Your task to perform on an android device: Open the Play Movies app and select the watchlist tab. Image 0: 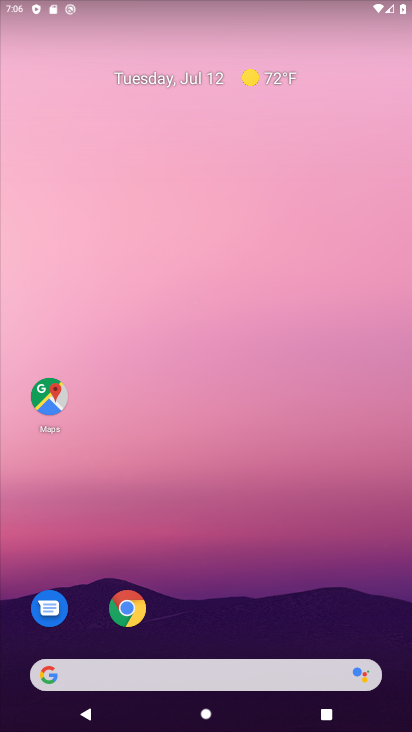
Step 0: drag from (226, 568) to (159, 97)
Your task to perform on an android device: Open the Play Movies app and select the watchlist tab. Image 1: 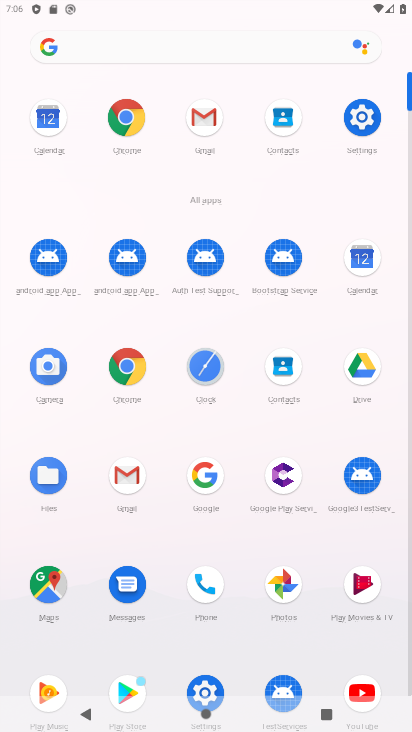
Step 1: click (352, 592)
Your task to perform on an android device: Open the Play Movies app and select the watchlist tab. Image 2: 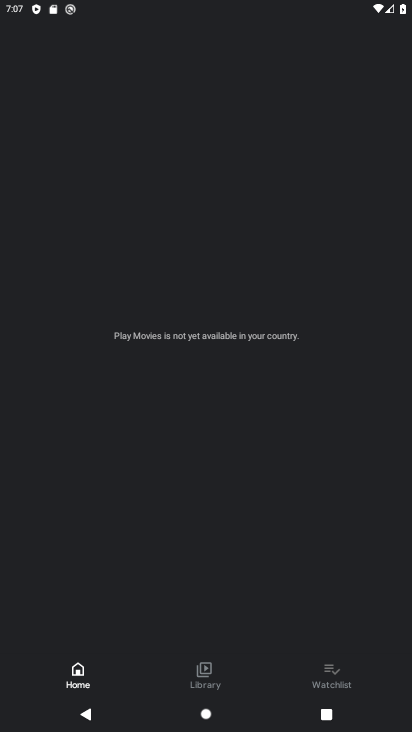
Step 2: click (332, 675)
Your task to perform on an android device: Open the Play Movies app and select the watchlist tab. Image 3: 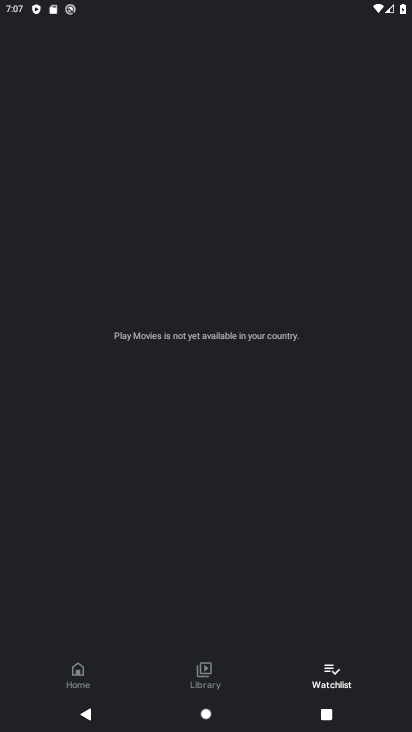
Step 3: task complete